Your task to perform on an android device: move a message to another label in the gmail app Image 0: 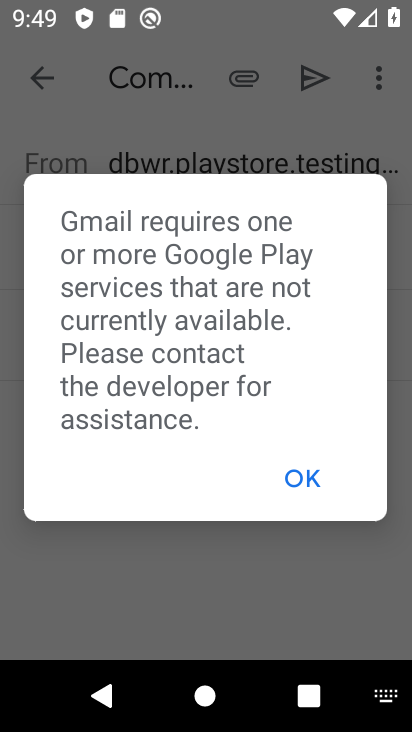
Step 0: press back button
Your task to perform on an android device: move a message to another label in the gmail app Image 1: 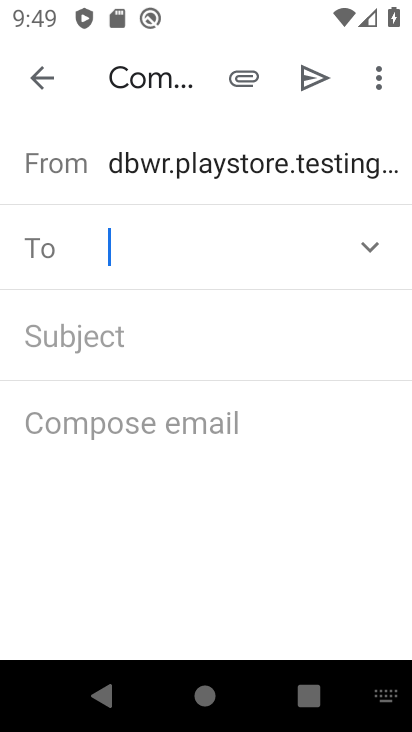
Step 1: press home button
Your task to perform on an android device: move a message to another label in the gmail app Image 2: 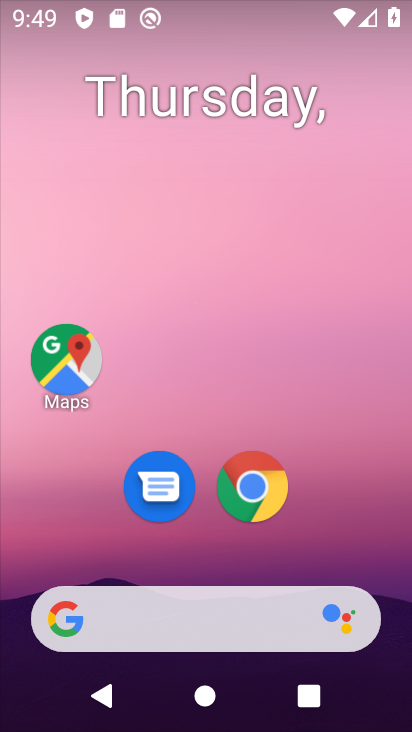
Step 2: drag from (198, 487) to (279, 102)
Your task to perform on an android device: move a message to another label in the gmail app Image 3: 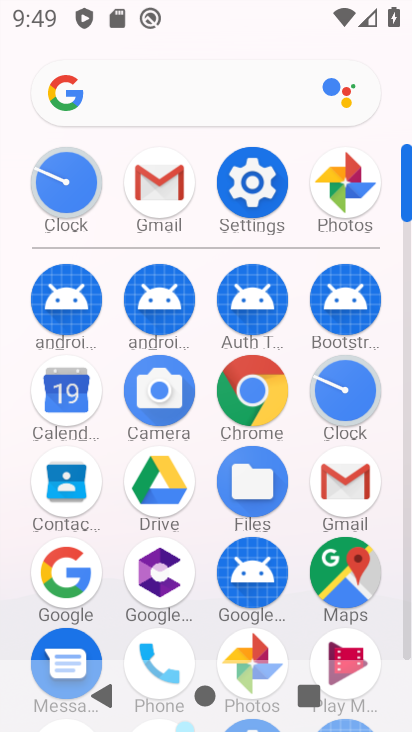
Step 3: click (152, 173)
Your task to perform on an android device: move a message to another label in the gmail app Image 4: 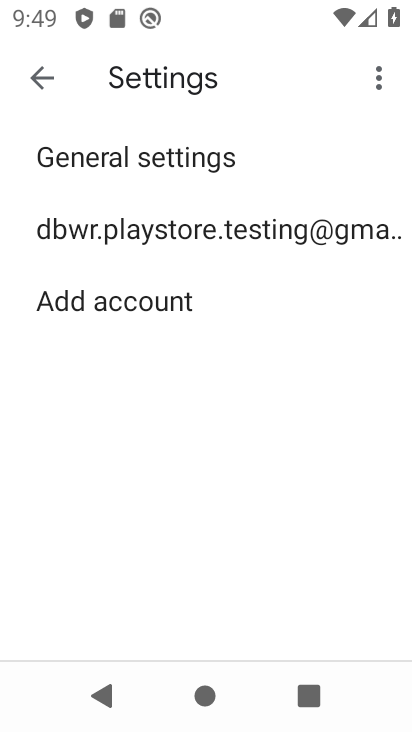
Step 4: click (46, 69)
Your task to perform on an android device: move a message to another label in the gmail app Image 5: 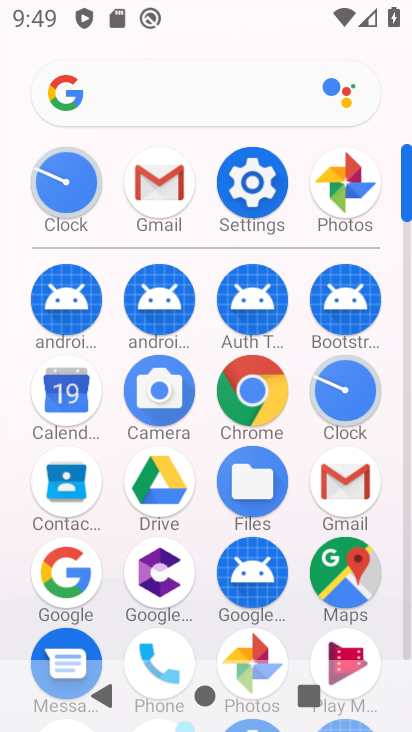
Step 5: click (134, 161)
Your task to perform on an android device: move a message to another label in the gmail app Image 6: 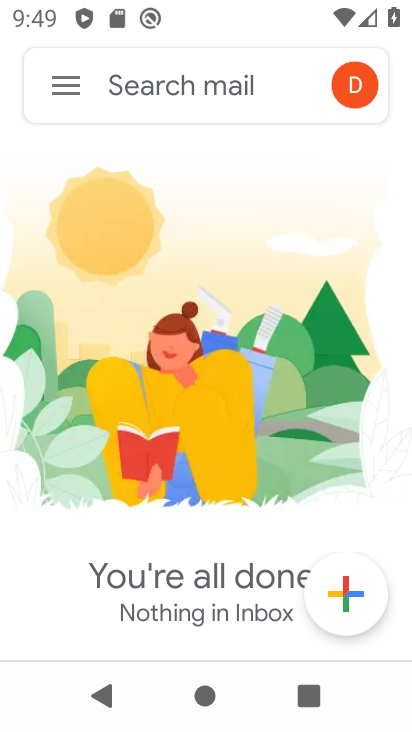
Step 6: click (63, 73)
Your task to perform on an android device: move a message to another label in the gmail app Image 7: 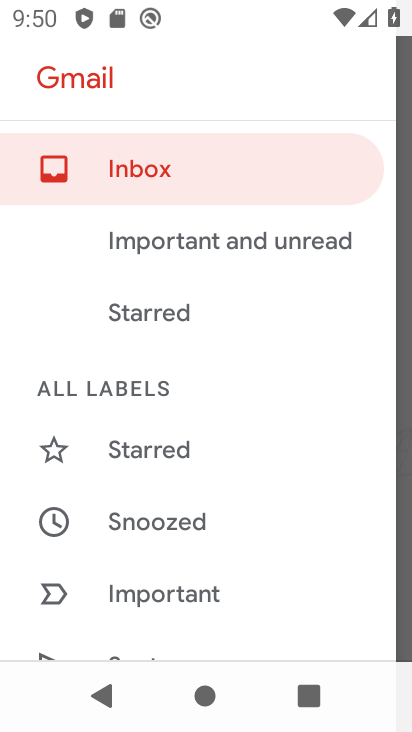
Step 7: drag from (188, 561) to (295, 171)
Your task to perform on an android device: move a message to another label in the gmail app Image 8: 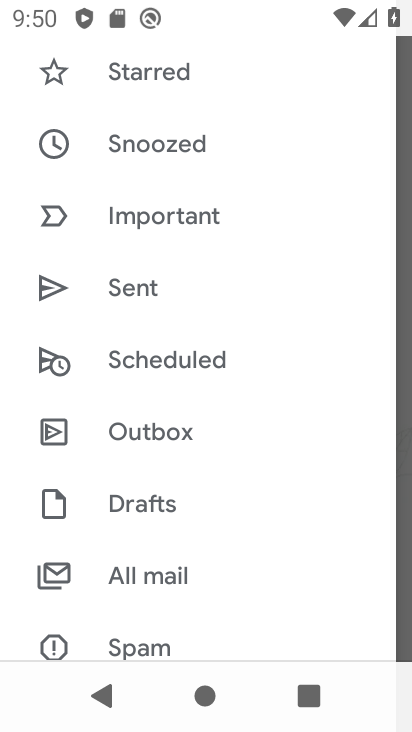
Step 8: click (144, 564)
Your task to perform on an android device: move a message to another label in the gmail app Image 9: 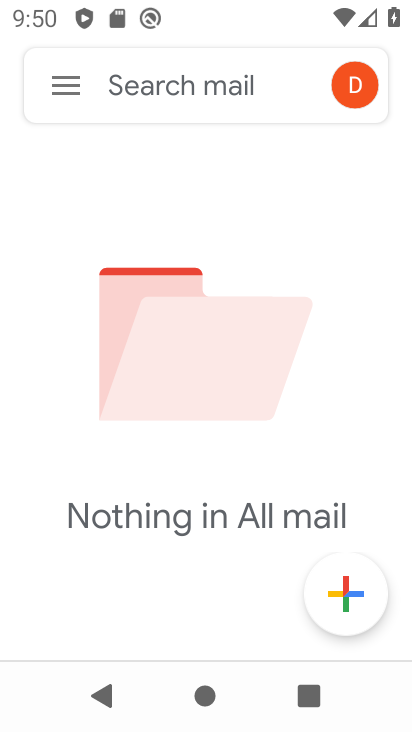
Step 9: task complete